Your task to perform on an android device: add a contact Image 0: 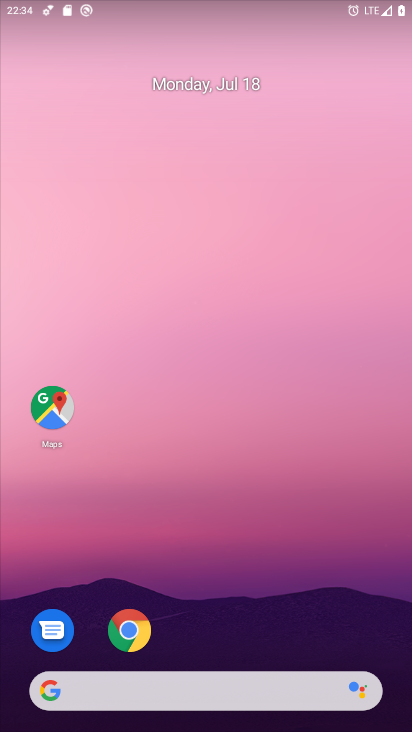
Step 0: drag from (175, 637) to (207, 208)
Your task to perform on an android device: add a contact Image 1: 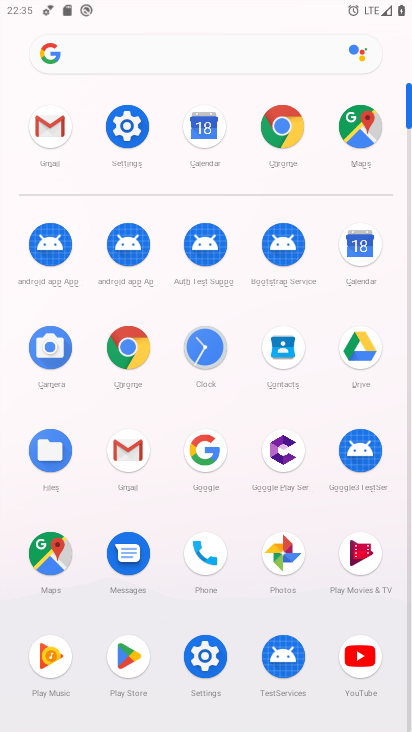
Step 1: click (202, 556)
Your task to perform on an android device: add a contact Image 2: 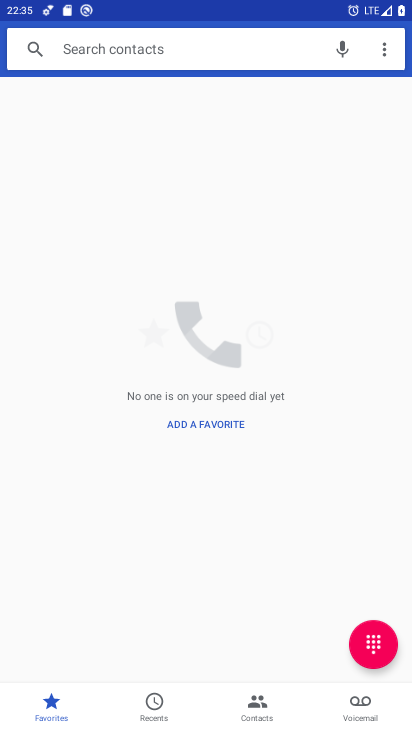
Step 2: click (221, 417)
Your task to perform on an android device: add a contact Image 3: 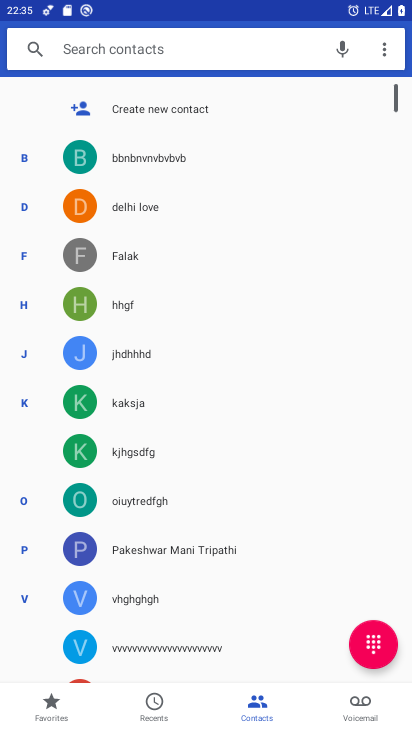
Step 3: click (113, 96)
Your task to perform on an android device: add a contact Image 4: 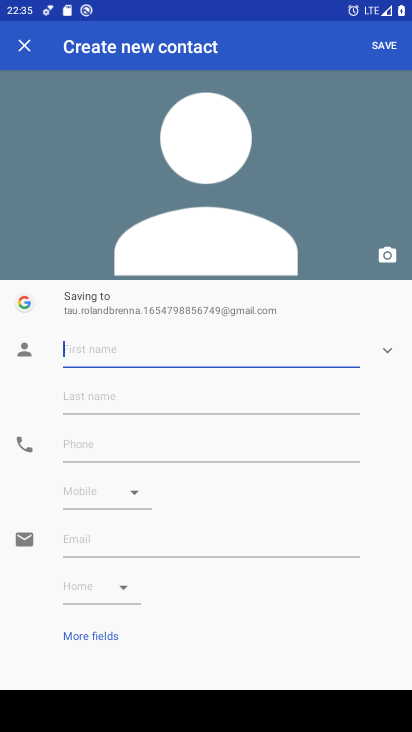
Step 4: type "ggggggggggggggggggg "
Your task to perform on an android device: add a contact Image 5: 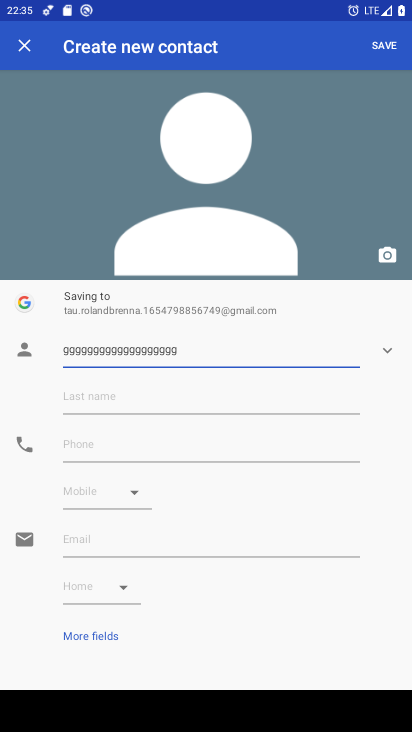
Step 5: click (122, 455)
Your task to perform on an android device: add a contact Image 6: 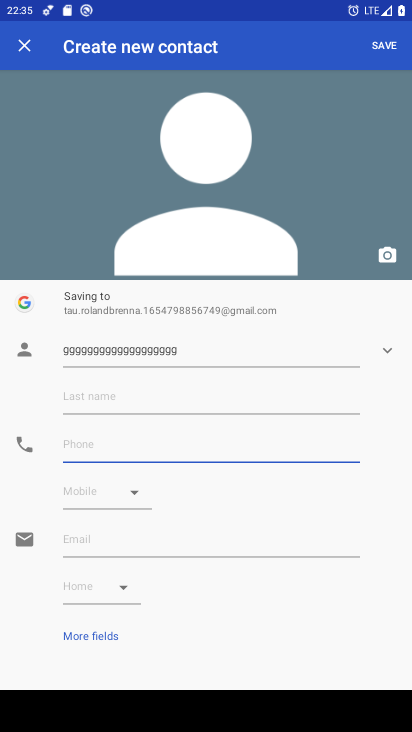
Step 6: type "44444444444444444444444444444444444444444 "
Your task to perform on an android device: add a contact Image 7: 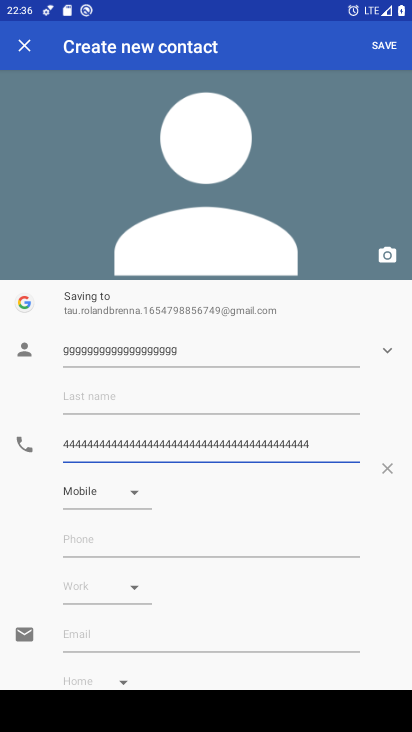
Step 7: click (388, 46)
Your task to perform on an android device: add a contact Image 8: 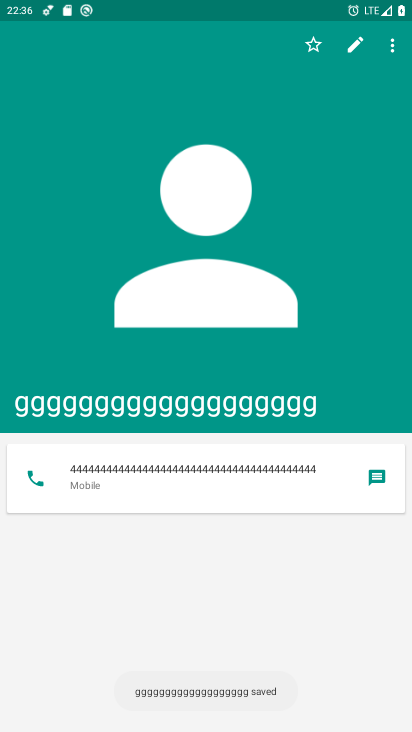
Step 8: task complete